Your task to perform on an android device: What is the news today? Image 0: 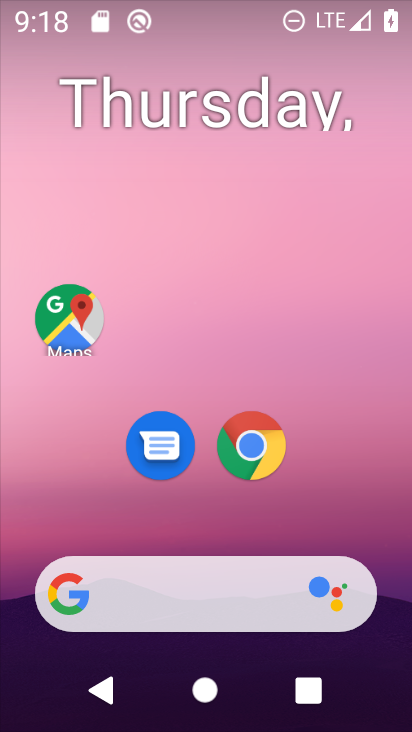
Step 0: drag from (394, 620) to (208, 23)
Your task to perform on an android device: What is the news today? Image 1: 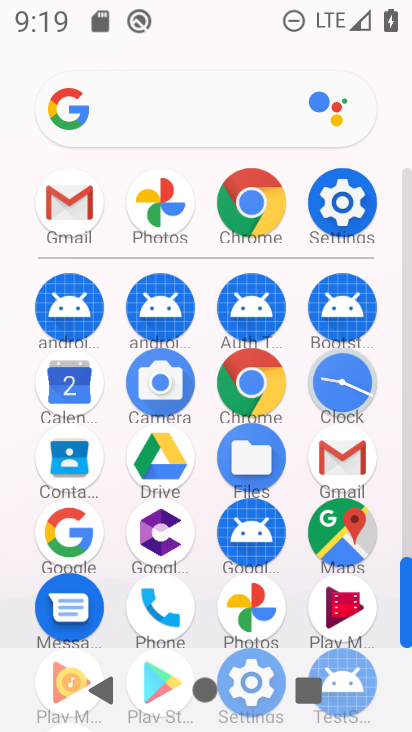
Step 1: click (82, 529)
Your task to perform on an android device: What is the news today? Image 2: 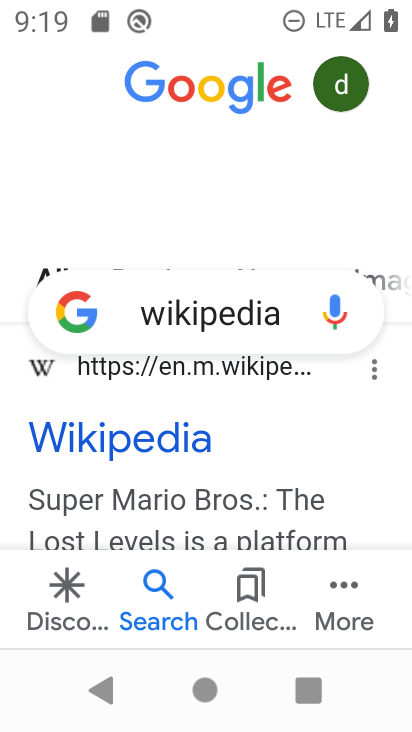
Step 2: press back button
Your task to perform on an android device: What is the news today? Image 3: 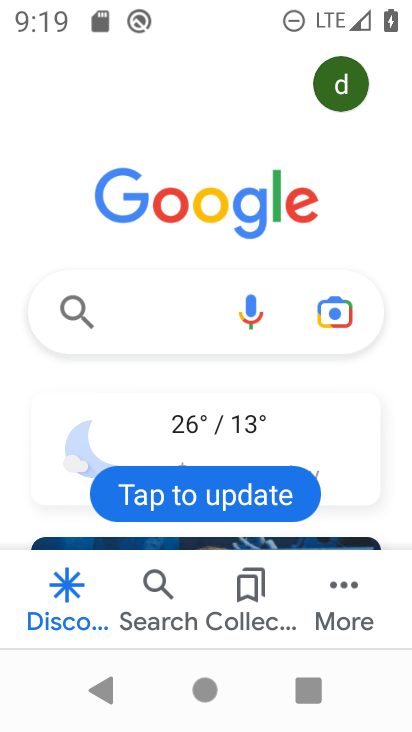
Step 3: click (148, 328)
Your task to perform on an android device: What is the news today? Image 4: 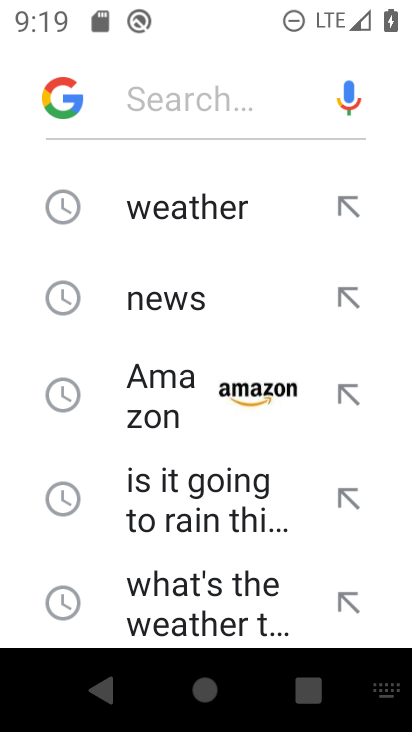
Step 4: drag from (113, 572) to (161, 135)
Your task to perform on an android device: What is the news today? Image 5: 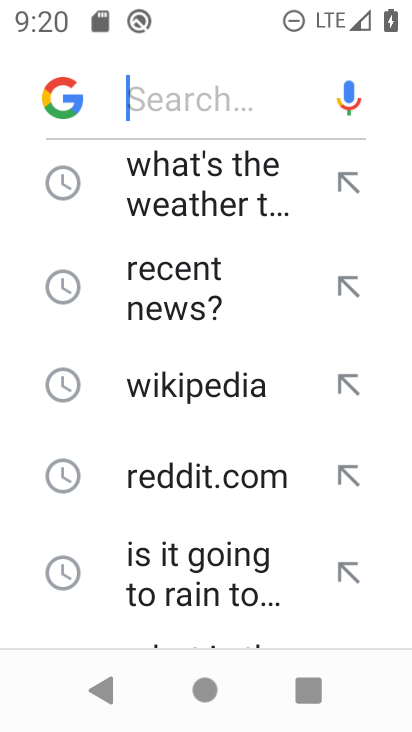
Step 5: drag from (128, 553) to (167, 183)
Your task to perform on an android device: What is the news today? Image 6: 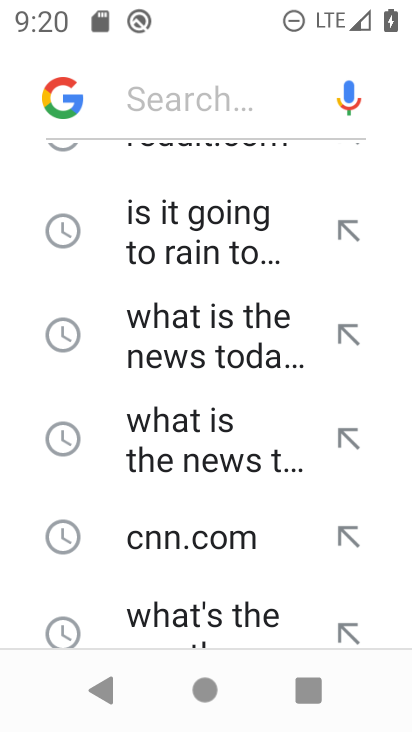
Step 6: drag from (172, 552) to (201, 151)
Your task to perform on an android device: What is the news today? Image 7: 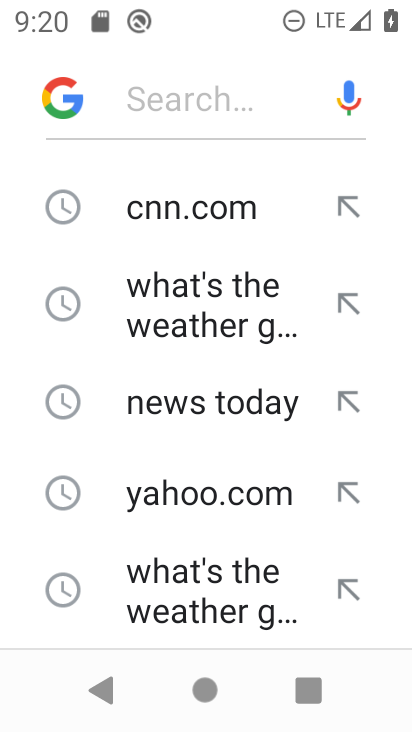
Step 7: click (229, 397)
Your task to perform on an android device: What is the news today? Image 8: 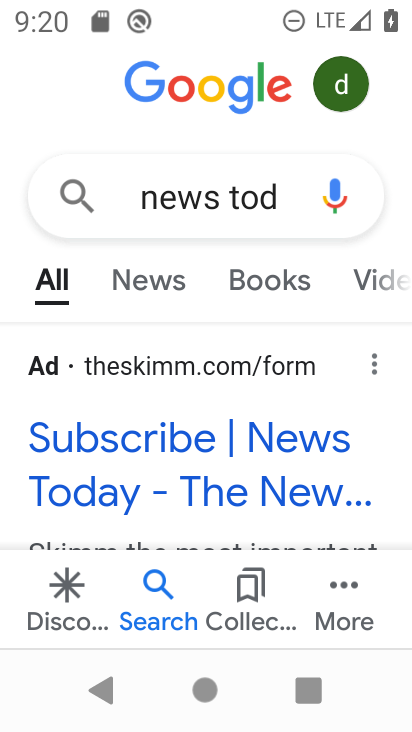
Step 8: task complete